Your task to perform on an android device: Go to eBay Image 0: 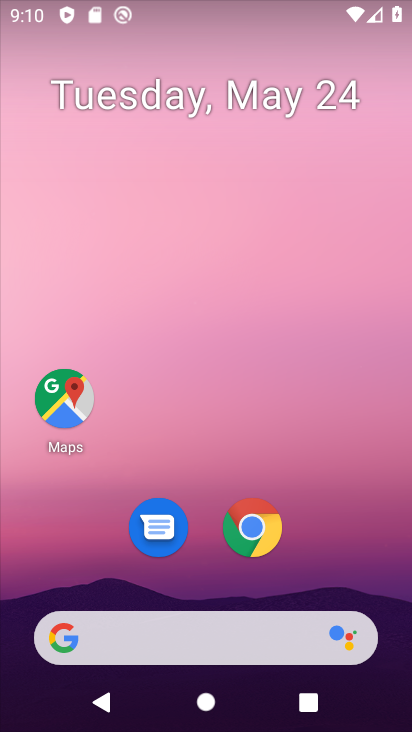
Step 0: drag from (194, 544) to (238, 77)
Your task to perform on an android device: Go to eBay Image 1: 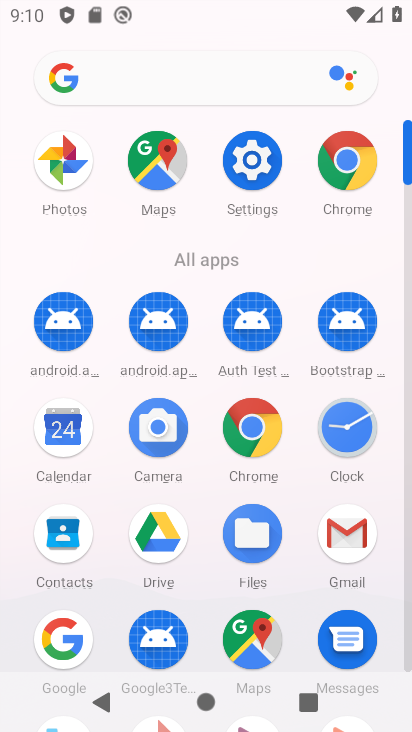
Step 1: click (344, 171)
Your task to perform on an android device: Go to eBay Image 2: 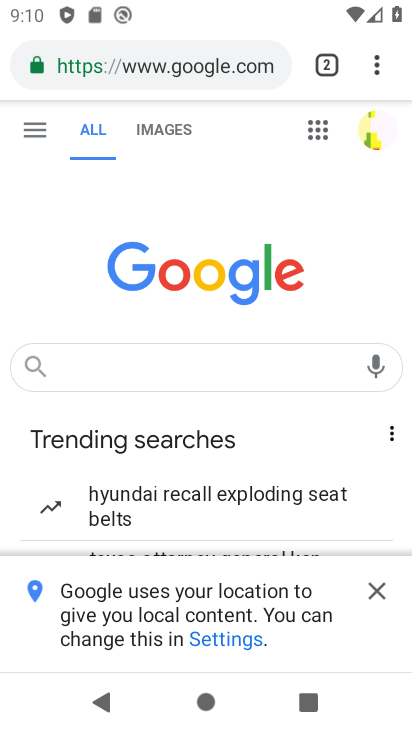
Step 2: click (178, 61)
Your task to perform on an android device: Go to eBay Image 3: 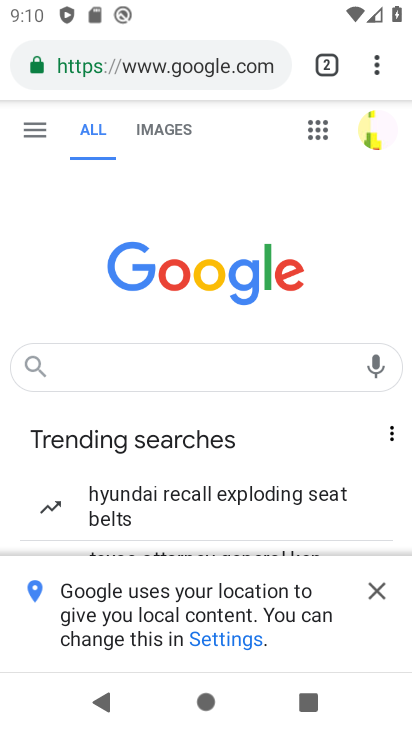
Step 3: click (178, 61)
Your task to perform on an android device: Go to eBay Image 4: 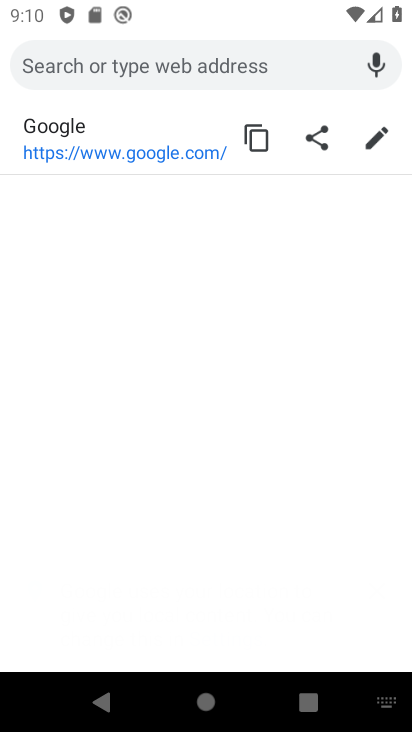
Step 4: type "ebay"
Your task to perform on an android device: Go to eBay Image 5: 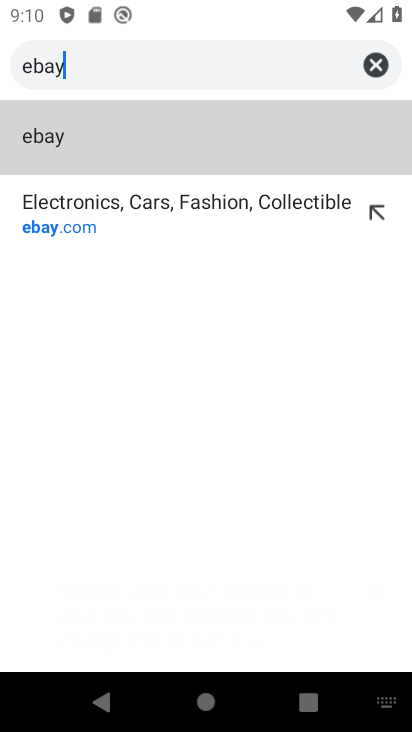
Step 5: click (69, 140)
Your task to perform on an android device: Go to eBay Image 6: 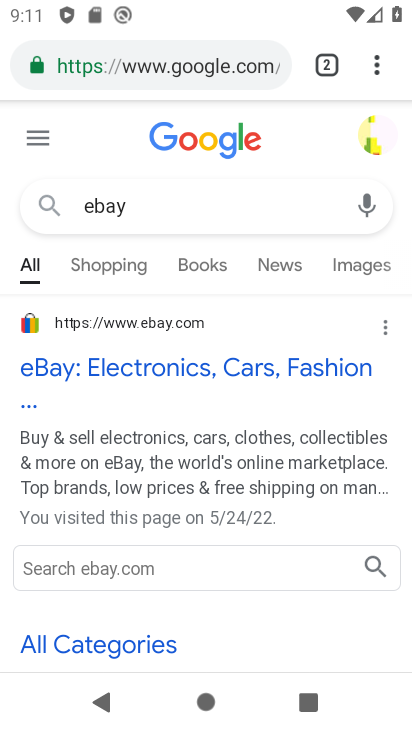
Step 6: click (119, 370)
Your task to perform on an android device: Go to eBay Image 7: 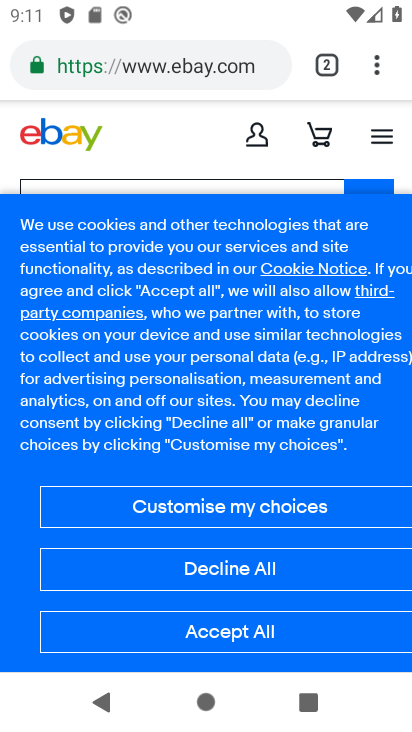
Step 7: task complete